Your task to perform on an android device: uninstall "Facebook Lite" Image 0: 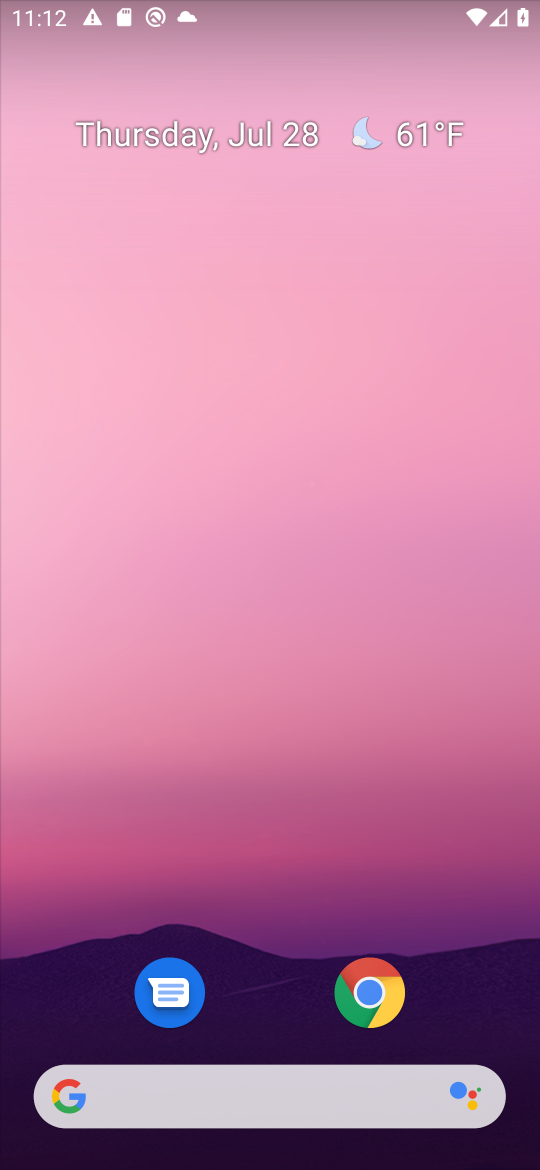
Step 0: drag from (264, 1091) to (443, 81)
Your task to perform on an android device: uninstall "Facebook Lite" Image 1: 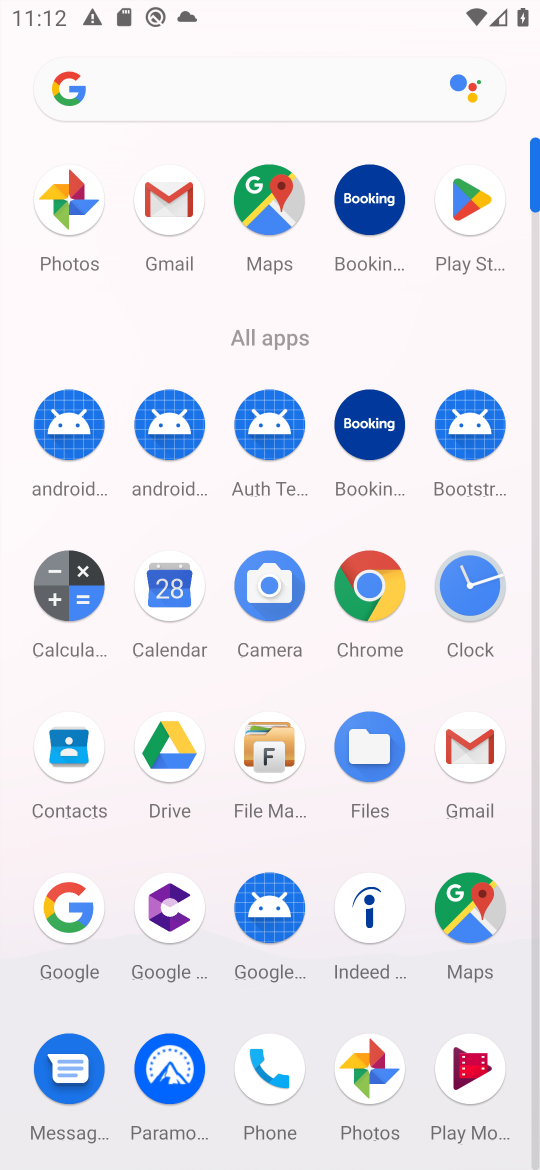
Step 1: click (473, 199)
Your task to perform on an android device: uninstall "Facebook Lite" Image 2: 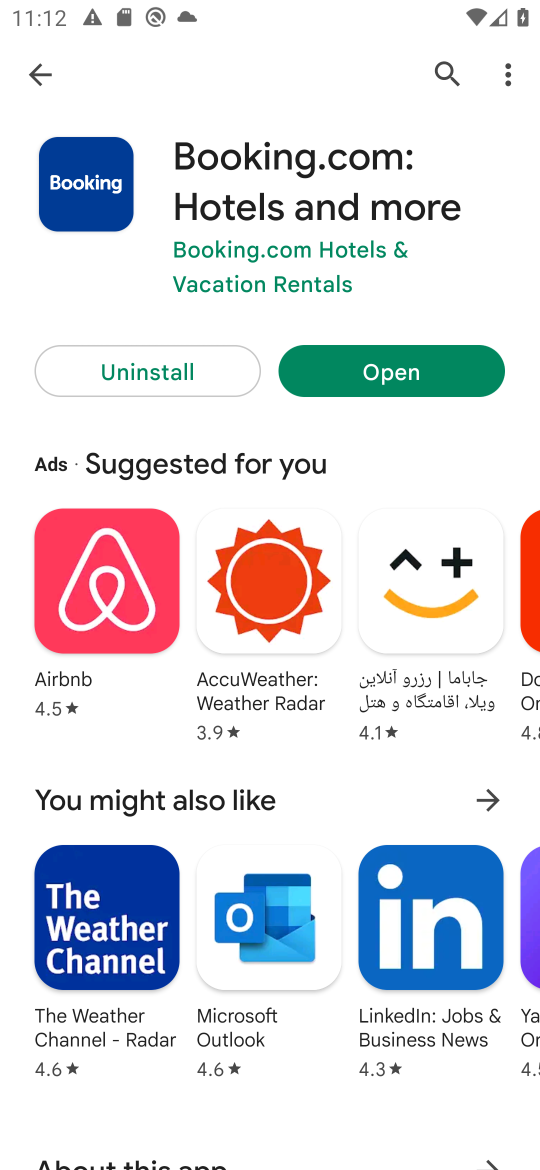
Step 2: click (442, 76)
Your task to perform on an android device: uninstall "Facebook Lite" Image 3: 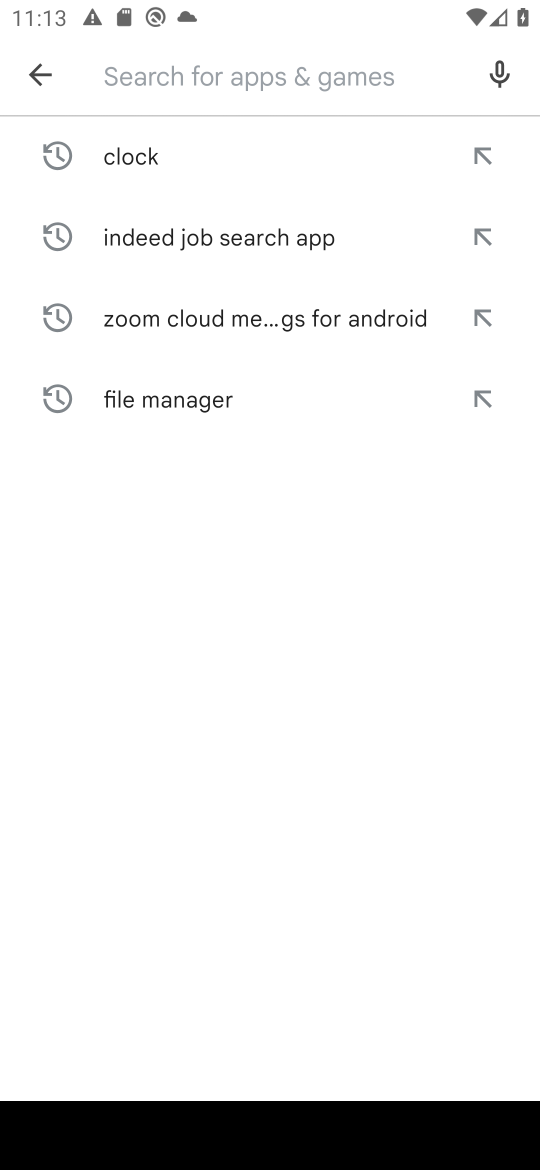
Step 3: type "Facebook Lite"
Your task to perform on an android device: uninstall "Facebook Lite" Image 4: 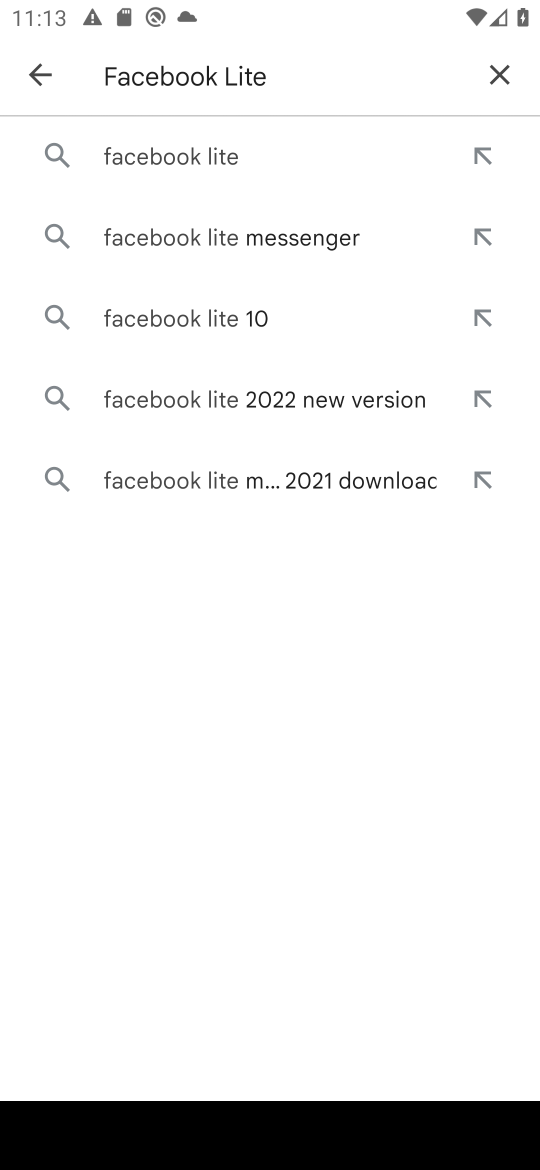
Step 4: click (192, 162)
Your task to perform on an android device: uninstall "Facebook Lite" Image 5: 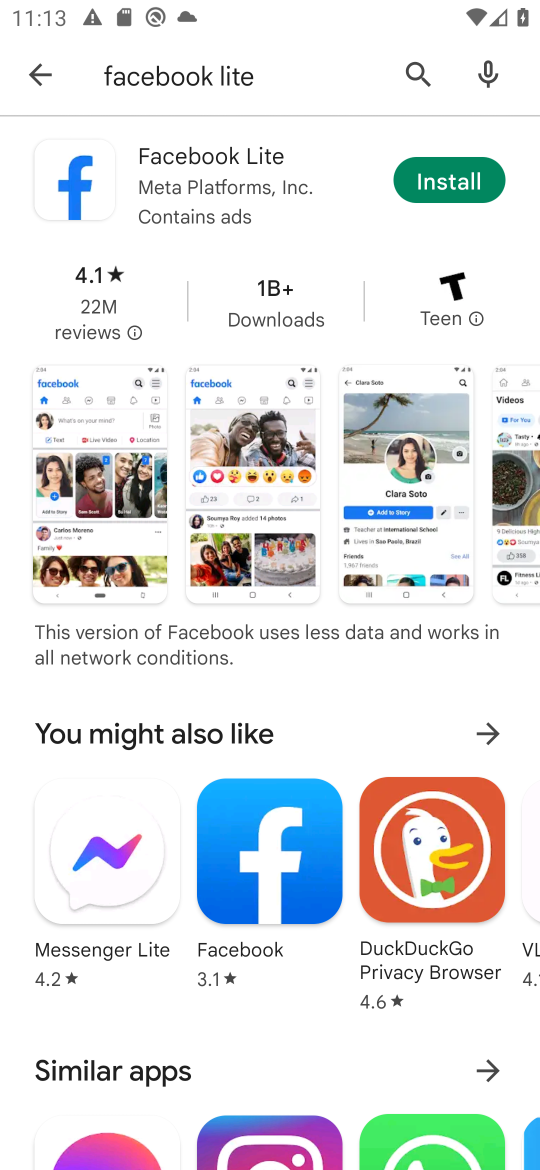
Step 5: task complete